Your task to perform on an android device: Is it going to rain this weekend? Image 0: 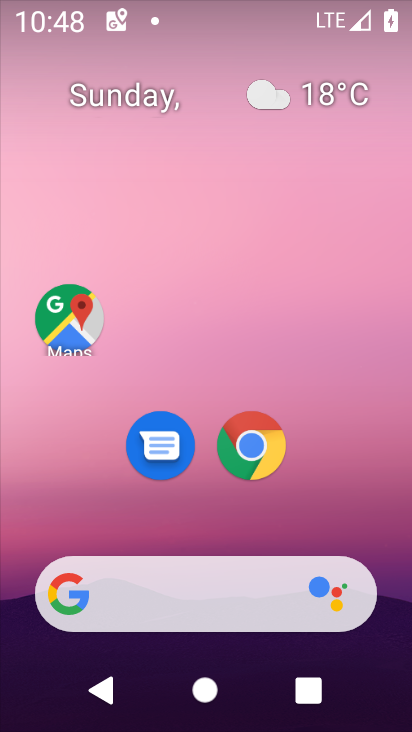
Step 0: press home button
Your task to perform on an android device: Is it going to rain this weekend? Image 1: 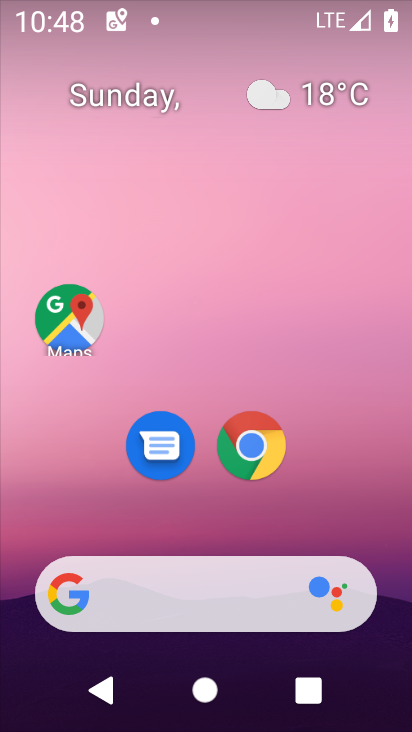
Step 1: click (330, 90)
Your task to perform on an android device: Is it going to rain this weekend? Image 2: 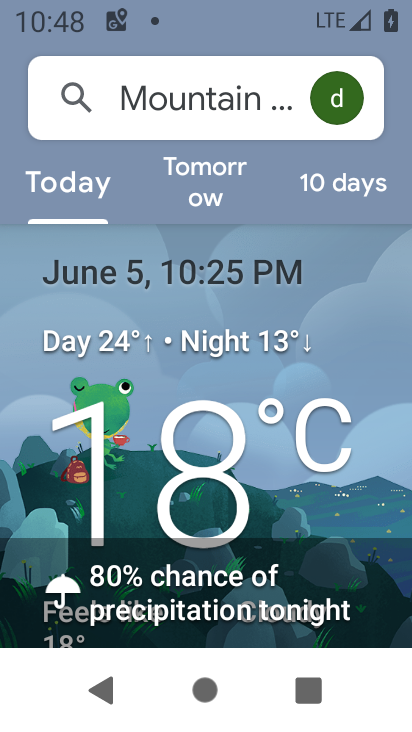
Step 2: click (313, 185)
Your task to perform on an android device: Is it going to rain this weekend? Image 3: 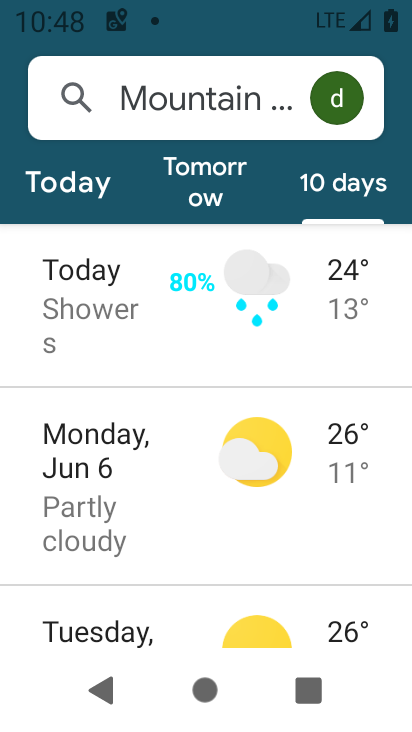
Step 3: task complete